Your task to perform on an android device: What's the weather? Image 0: 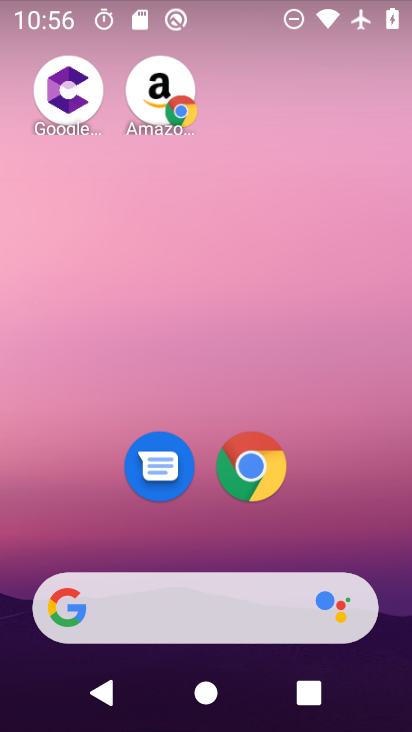
Step 0: drag from (350, 523) to (272, 0)
Your task to perform on an android device: What's the weather? Image 1: 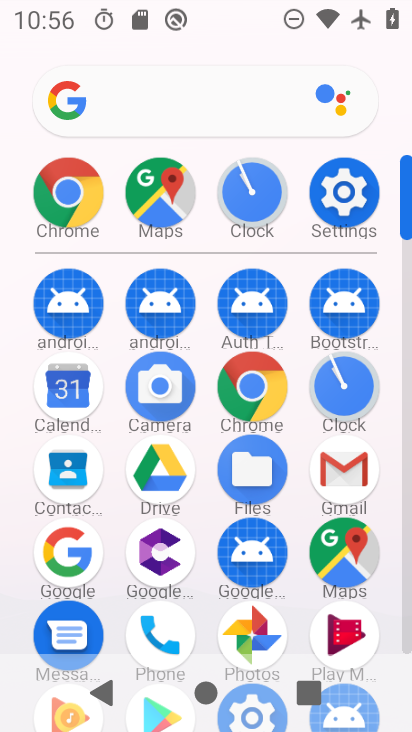
Step 1: click (251, 383)
Your task to perform on an android device: What's the weather? Image 2: 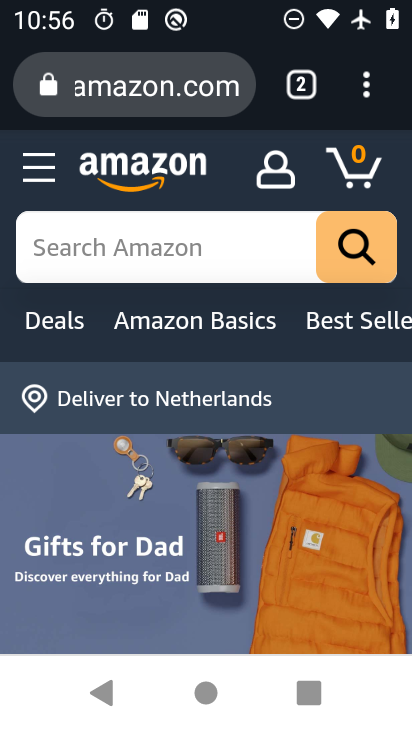
Step 2: click (189, 75)
Your task to perform on an android device: What's the weather? Image 3: 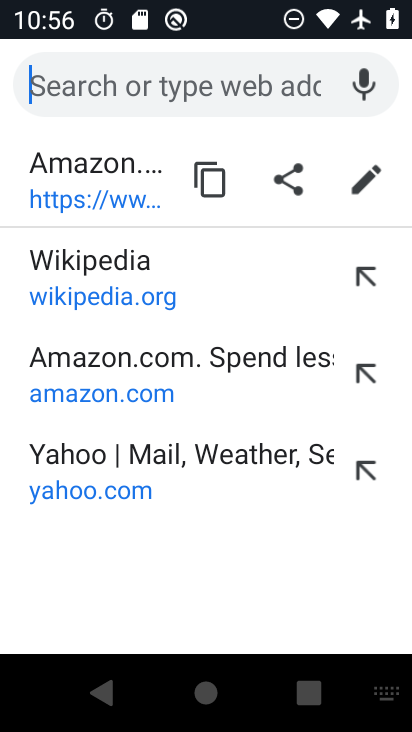
Step 3: type "What's the weather?"
Your task to perform on an android device: What's the weather? Image 4: 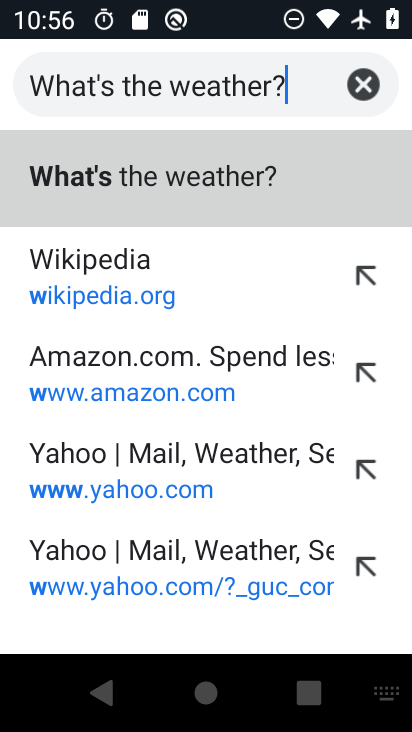
Step 4: type ""
Your task to perform on an android device: What's the weather? Image 5: 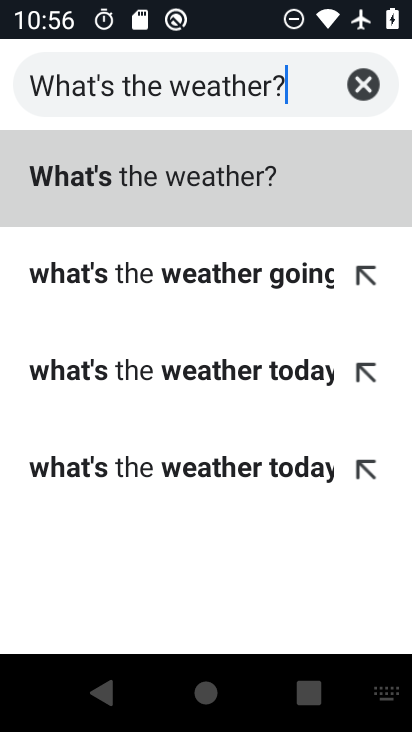
Step 5: click (199, 187)
Your task to perform on an android device: What's the weather? Image 6: 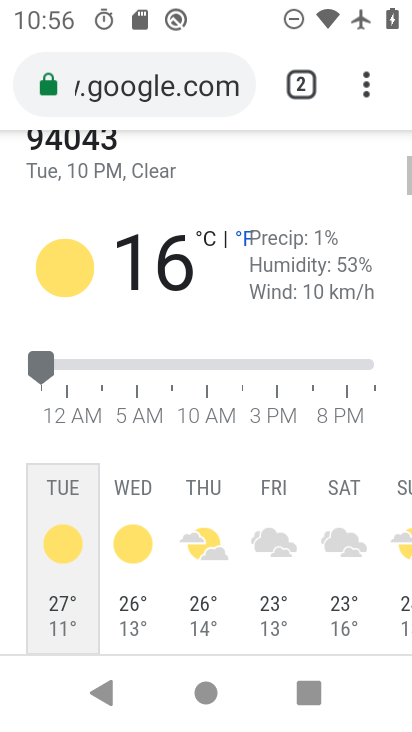
Step 6: task complete